Your task to perform on an android device: open chrome and create a bookmark for the current page Image 0: 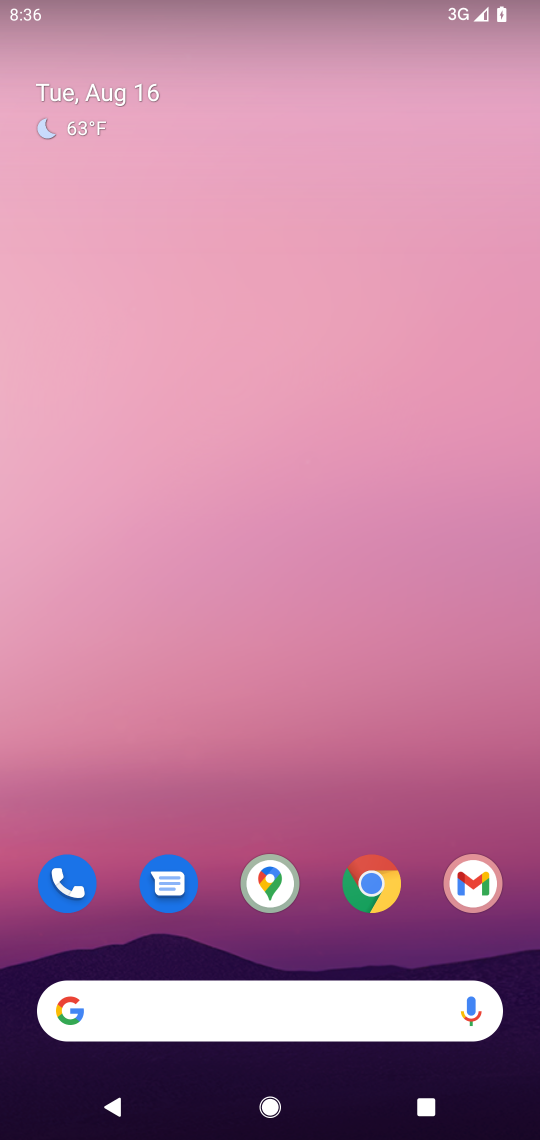
Step 0: click (395, 903)
Your task to perform on an android device: open chrome and create a bookmark for the current page Image 1: 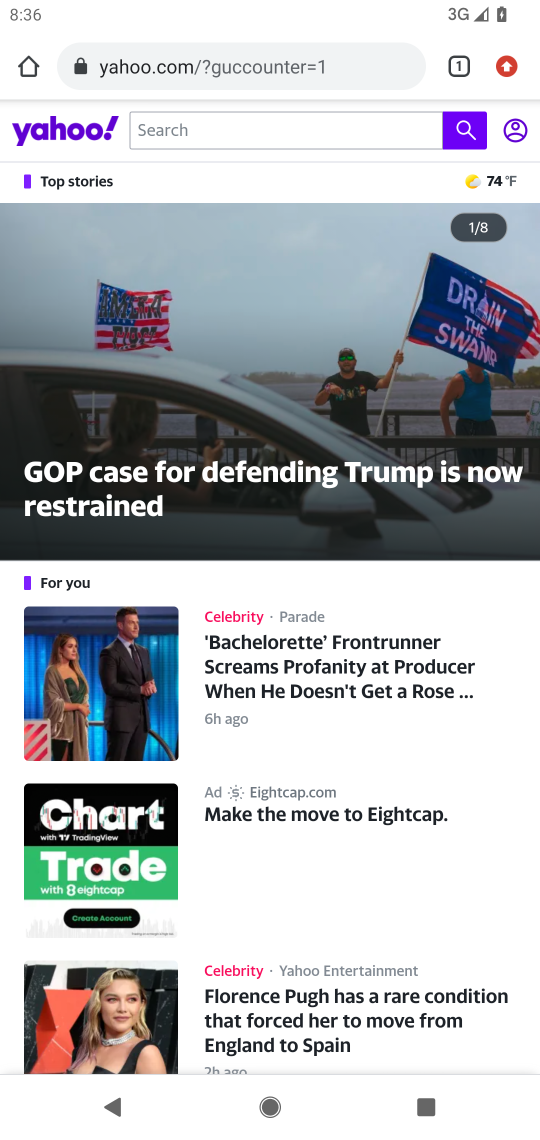
Step 1: click (495, 64)
Your task to perform on an android device: open chrome and create a bookmark for the current page Image 2: 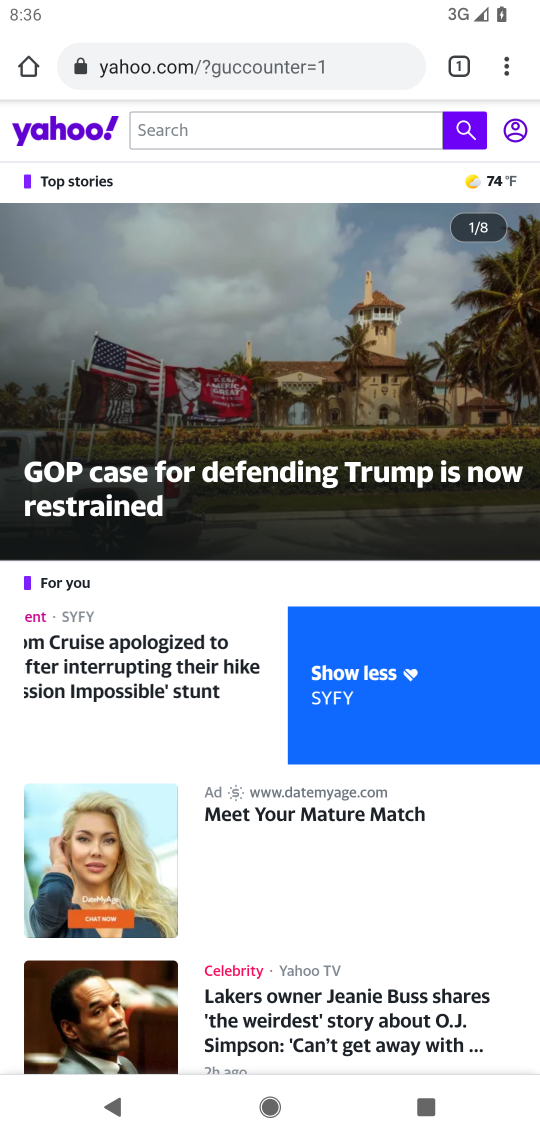
Step 2: click (502, 67)
Your task to perform on an android device: open chrome and create a bookmark for the current page Image 3: 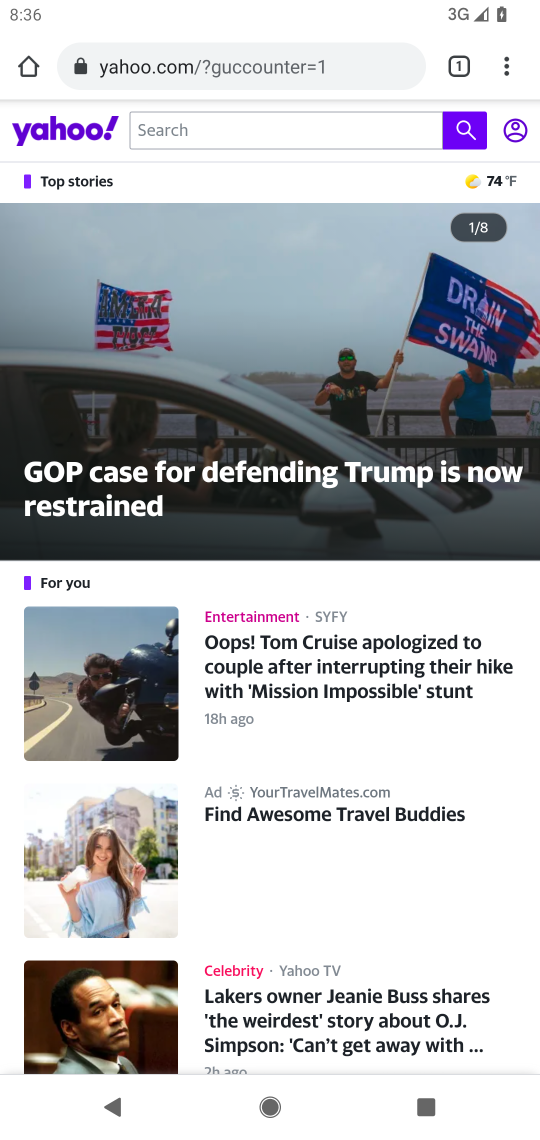
Step 3: click (514, 80)
Your task to perform on an android device: open chrome and create a bookmark for the current page Image 4: 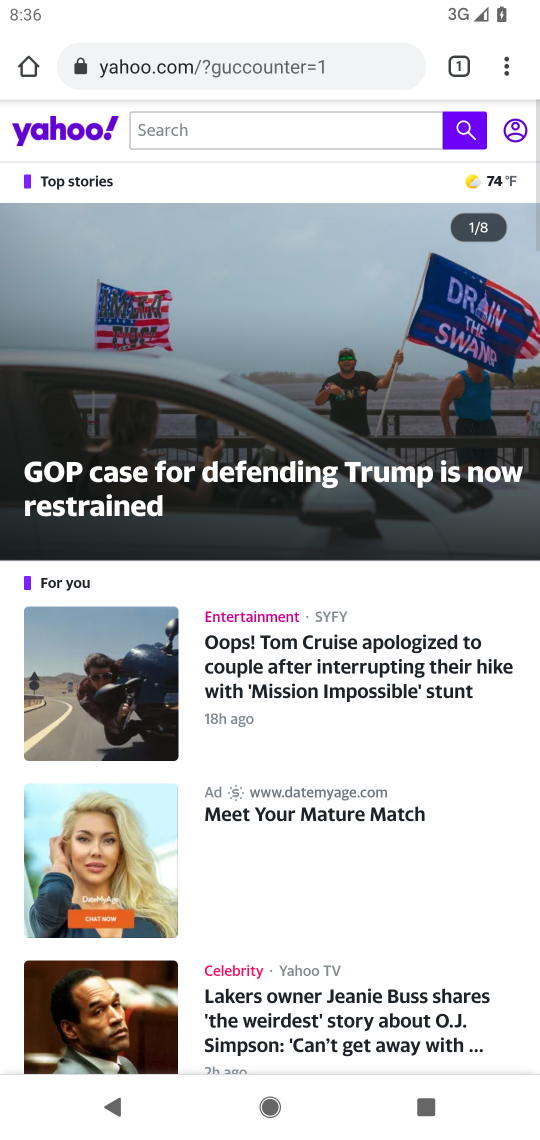
Step 4: click (514, 80)
Your task to perform on an android device: open chrome and create a bookmark for the current page Image 5: 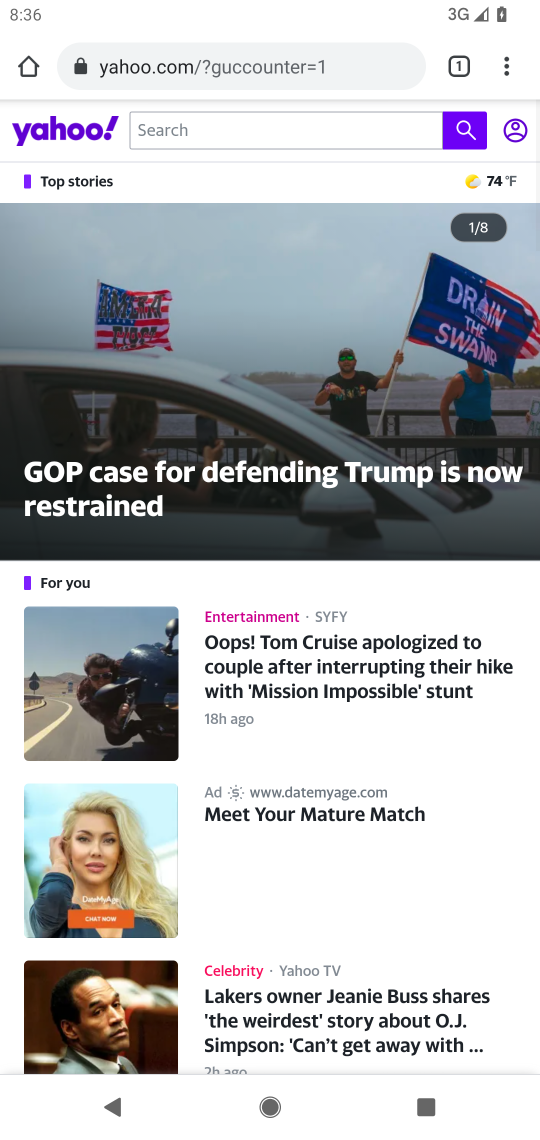
Step 5: click (514, 80)
Your task to perform on an android device: open chrome and create a bookmark for the current page Image 6: 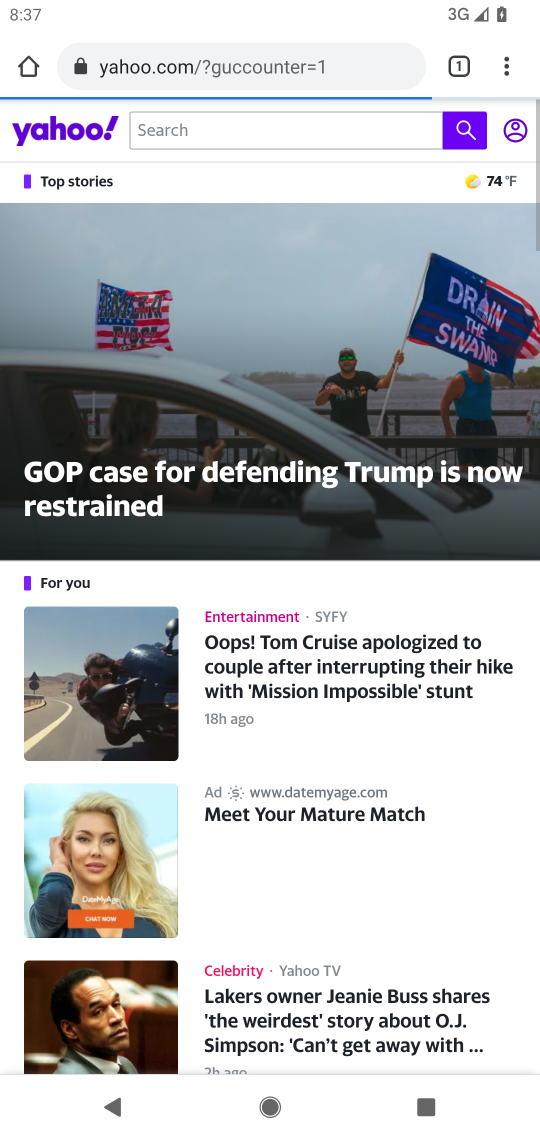
Step 6: click (514, 80)
Your task to perform on an android device: open chrome and create a bookmark for the current page Image 7: 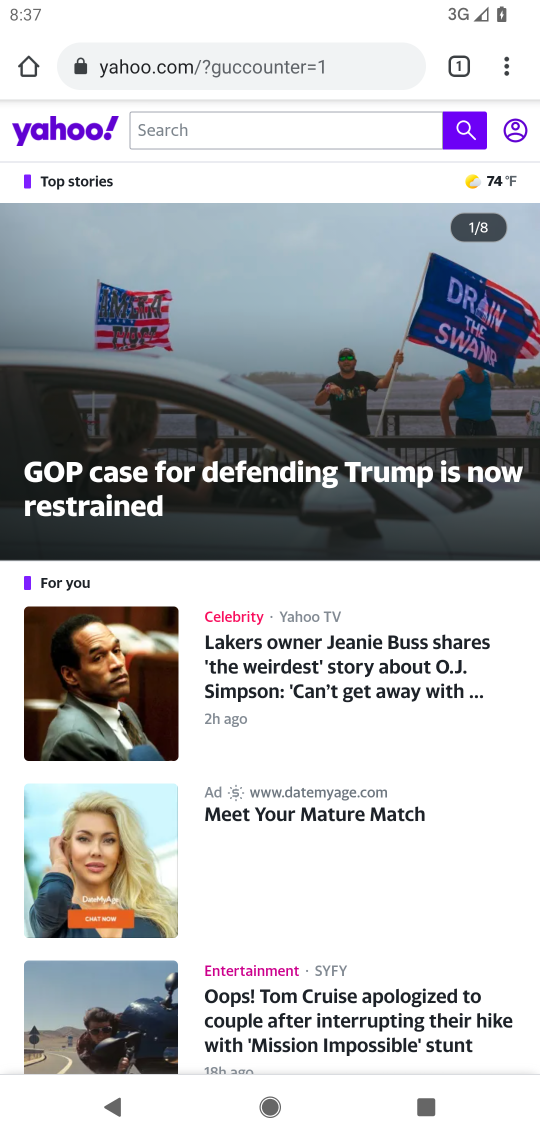
Step 7: click (499, 66)
Your task to perform on an android device: open chrome and create a bookmark for the current page Image 8: 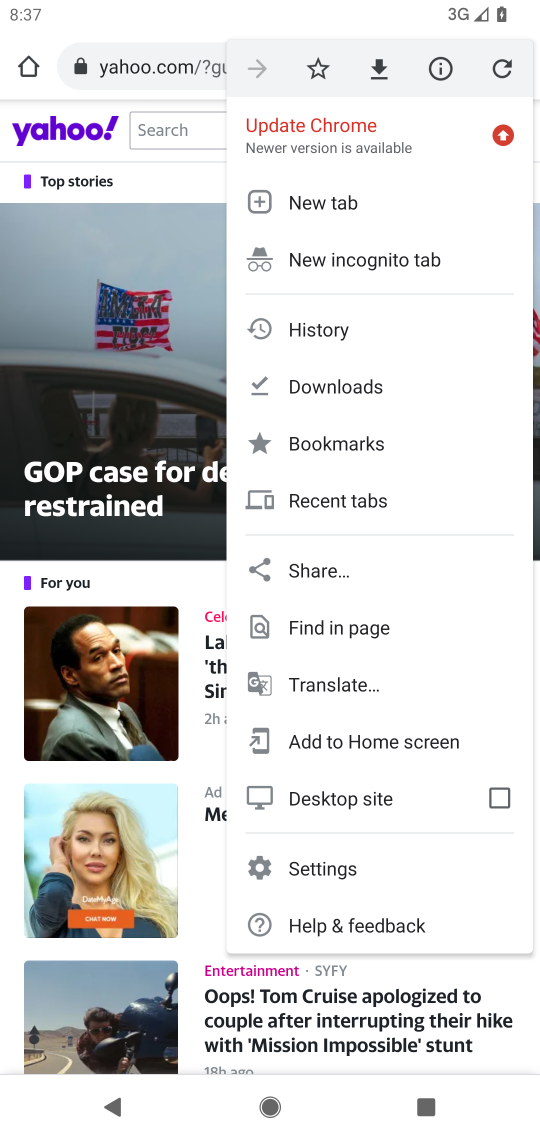
Step 8: click (309, 67)
Your task to perform on an android device: open chrome and create a bookmark for the current page Image 9: 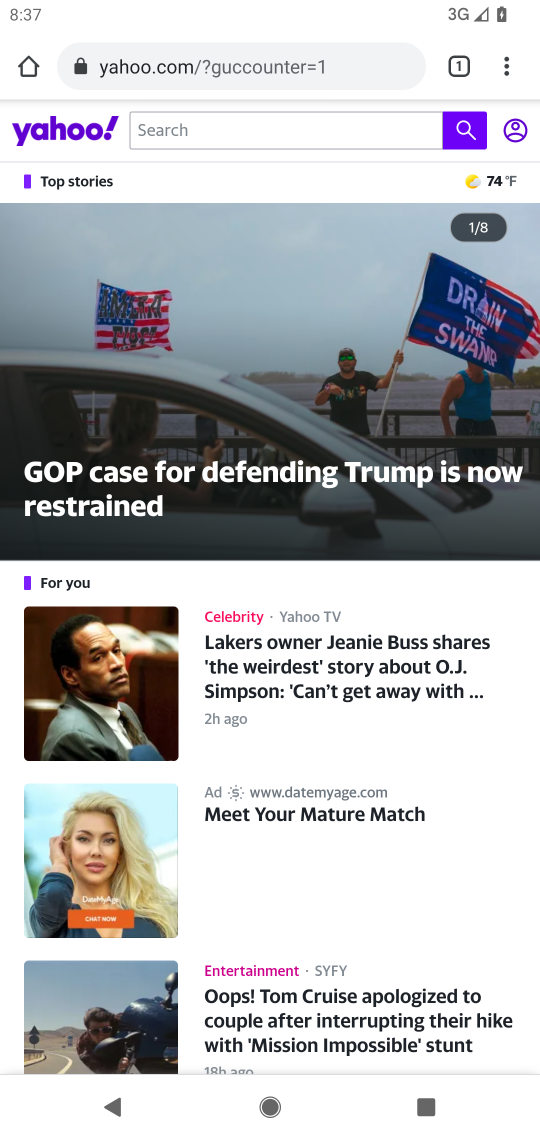
Step 9: task complete